Your task to perform on an android device: Find coffee shops on Maps Image 0: 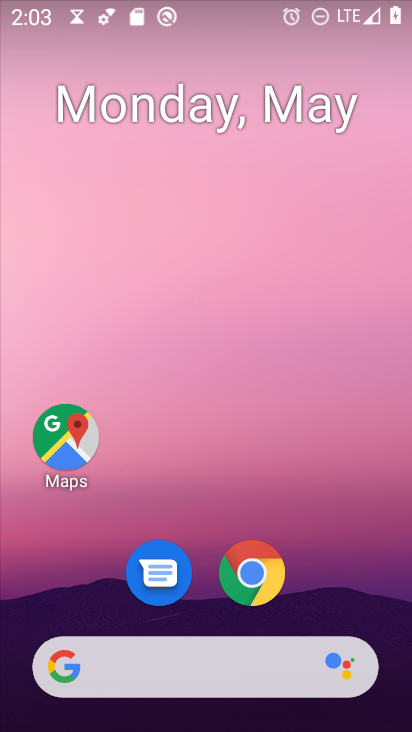
Step 0: drag from (319, 659) to (373, 47)
Your task to perform on an android device: Find coffee shops on Maps Image 1: 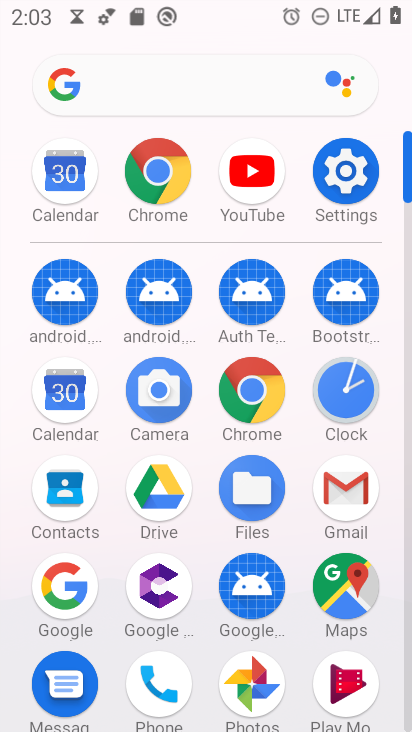
Step 1: click (347, 577)
Your task to perform on an android device: Find coffee shops on Maps Image 2: 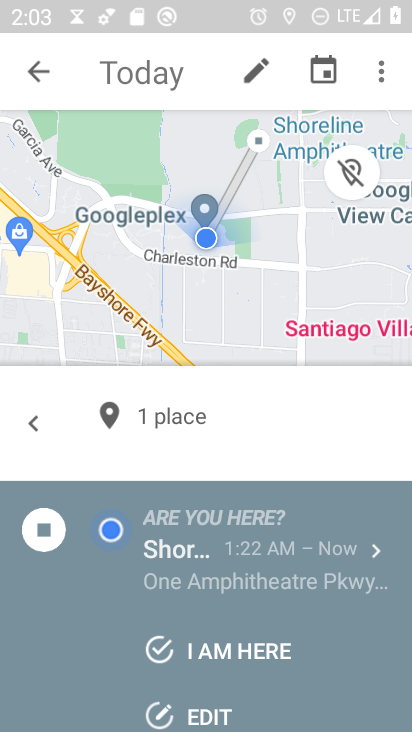
Step 2: press back button
Your task to perform on an android device: Find coffee shops on Maps Image 3: 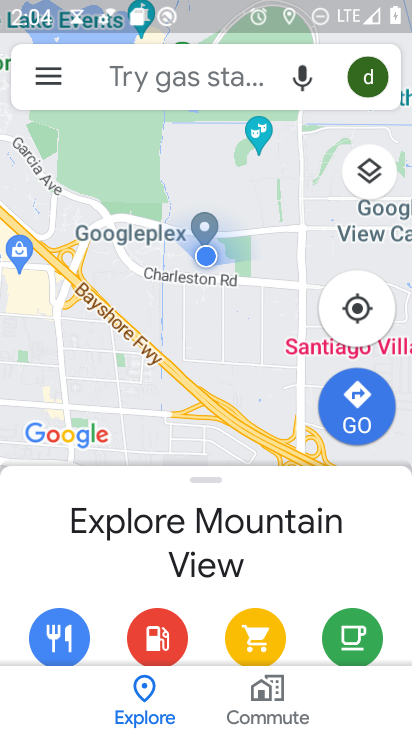
Step 3: click (174, 84)
Your task to perform on an android device: Find coffee shops on Maps Image 4: 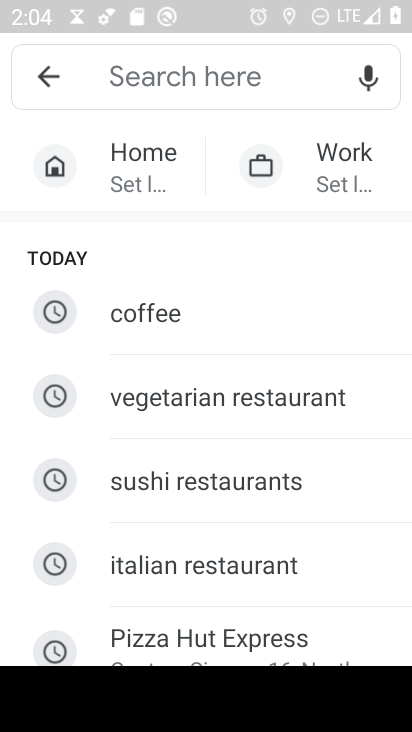
Step 4: type "coffee shops"
Your task to perform on an android device: Find coffee shops on Maps Image 5: 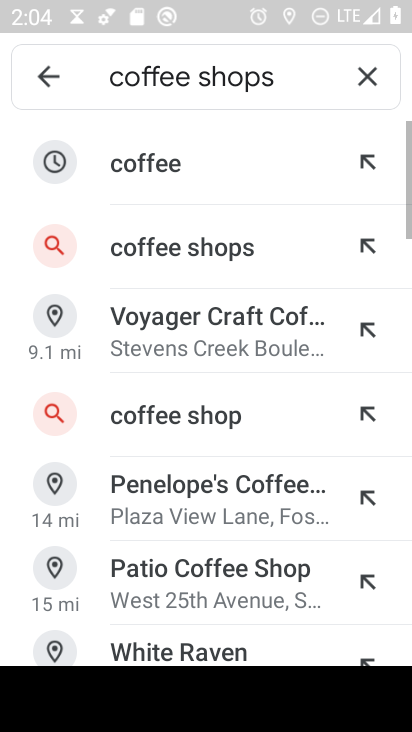
Step 5: click (231, 242)
Your task to perform on an android device: Find coffee shops on Maps Image 6: 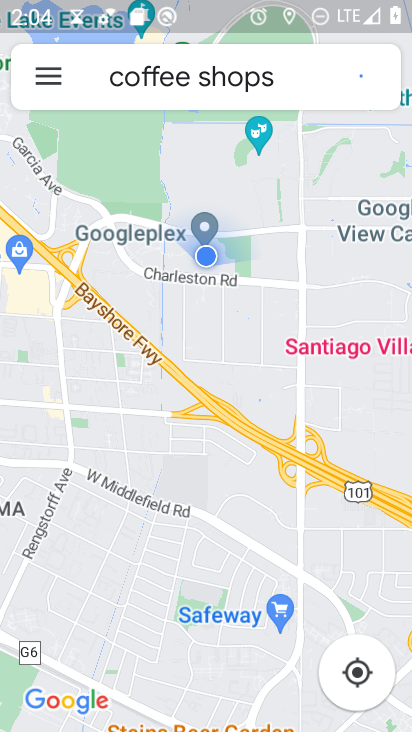
Step 6: task complete